Your task to perform on an android device: turn off notifications in google photos Image 0: 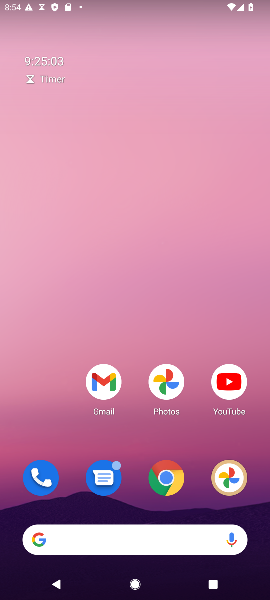
Step 0: drag from (192, 343) to (191, 10)
Your task to perform on an android device: turn off notifications in google photos Image 1: 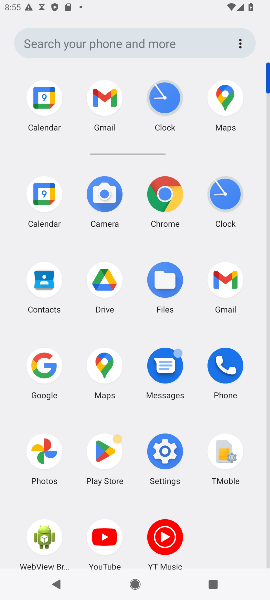
Step 1: click (51, 450)
Your task to perform on an android device: turn off notifications in google photos Image 2: 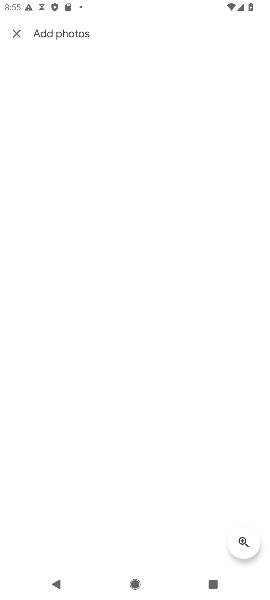
Step 2: click (10, 37)
Your task to perform on an android device: turn off notifications in google photos Image 3: 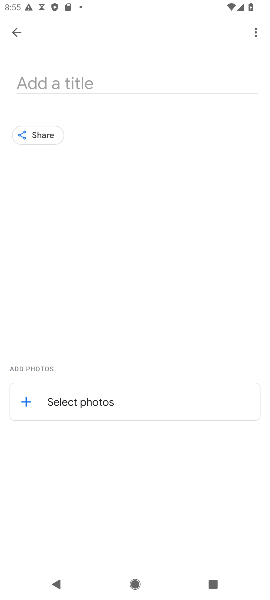
Step 3: click (19, 33)
Your task to perform on an android device: turn off notifications in google photos Image 4: 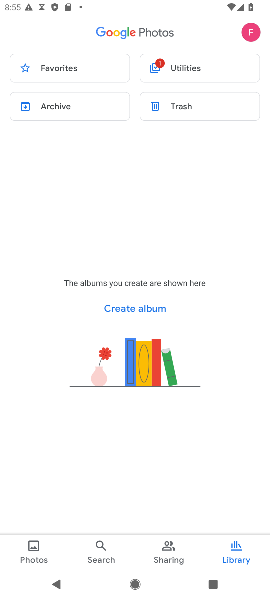
Step 4: click (249, 40)
Your task to perform on an android device: turn off notifications in google photos Image 5: 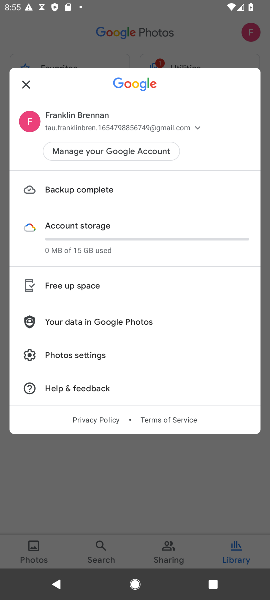
Step 5: click (86, 363)
Your task to perform on an android device: turn off notifications in google photos Image 6: 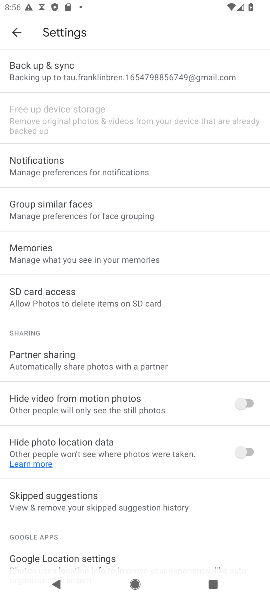
Step 6: click (106, 151)
Your task to perform on an android device: turn off notifications in google photos Image 7: 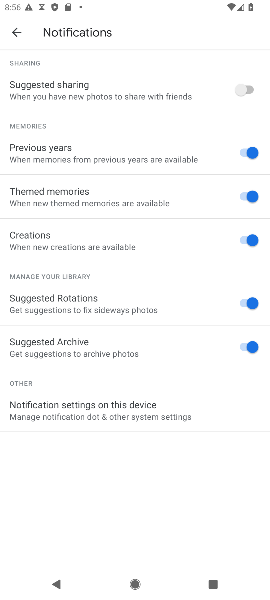
Step 7: click (124, 413)
Your task to perform on an android device: turn off notifications in google photos Image 8: 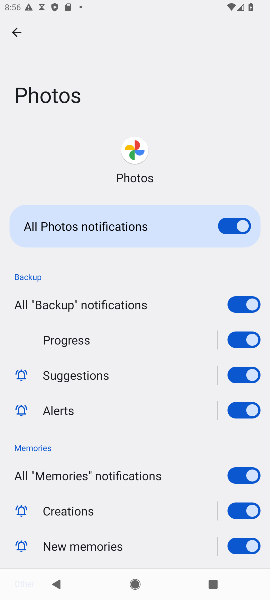
Step 8: click (229, 233)
Your task to perform on an android device: turn off notifications in google photos Image 9: 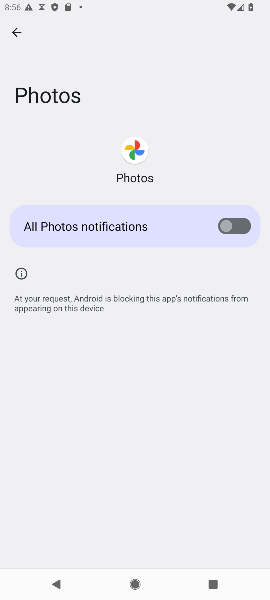
Step 9: task complete